Your task to perform on an android device: open chrome and create a bookmark for the current page Image 0: 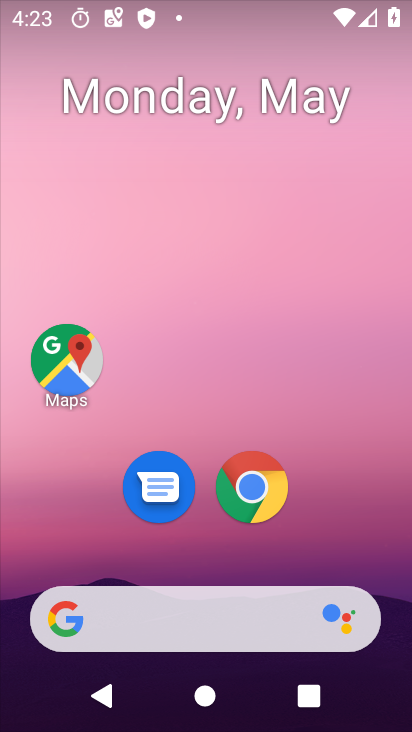
Step 0: click (256, 495)
Your task to perform on an android device: open chrome and create a bookmark for the current page Image 1: 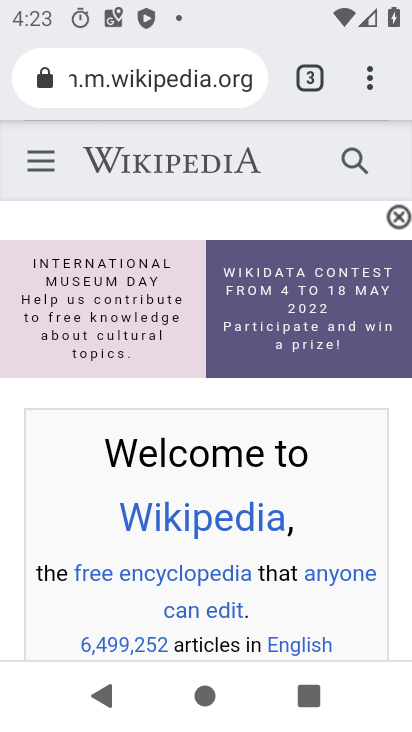
Step 1: click (369, 69)
Your task to perform on an android device: open chrome and create a bookmark for the current page Image 2: 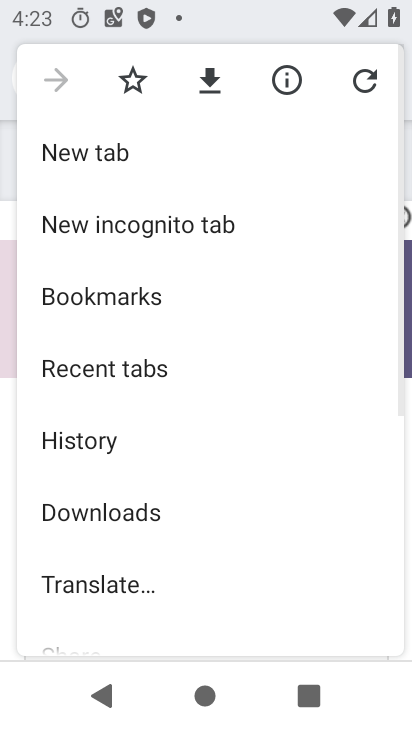
Step 2: click (139, 84)
Your task to perform on an android device: open chrome and create a bookmark for the current page Image 3: 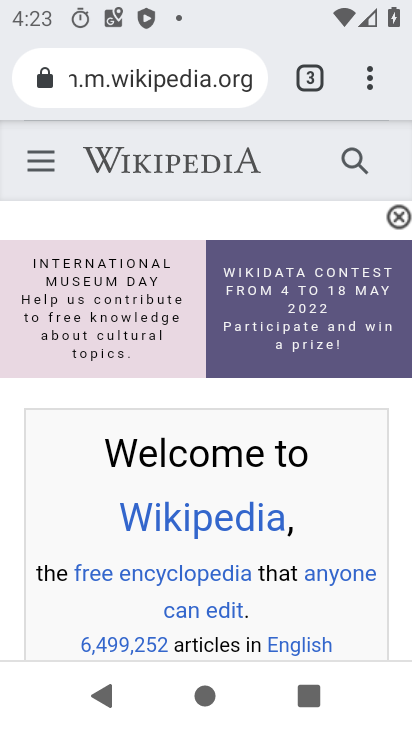
Step 3: task complete